Your task to perform on an android device: Go to Android settings Image 0: 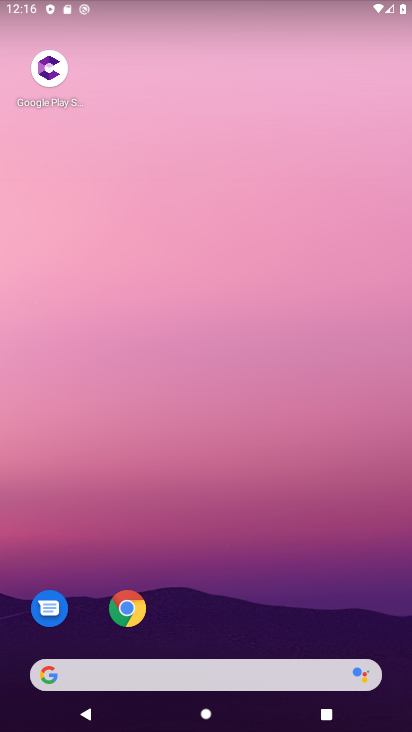
Step 0: drag from (285, 641) to (310, 197)
Your task to perform on an android device: Go to Android settings Image 1: 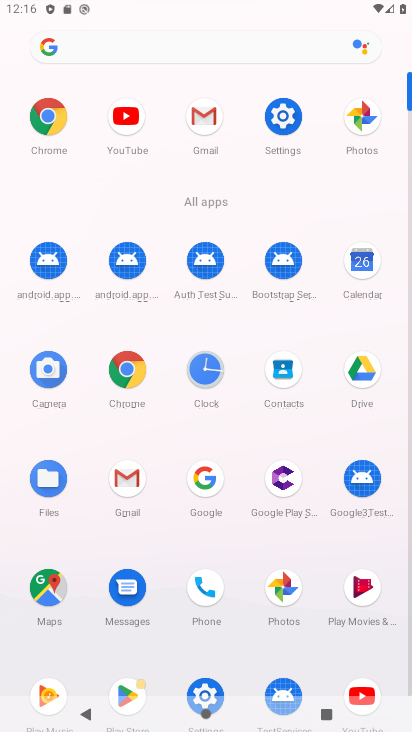
Step 1: click (289, 129)
Your task to perform on an android device: Go to Android settings Image 2: 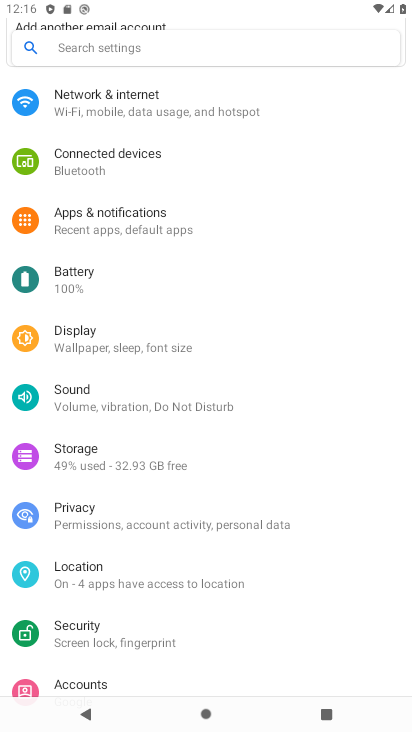
Step 2: task complete